Your task to perform on an android device: Open ESPN.com Image 0: 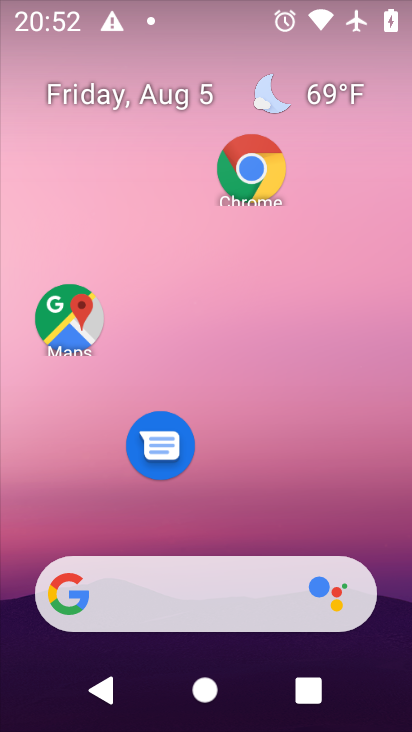
Step 0: click (234, 193)
Your task to perform on an android device: Open ESPN.com Image 1: 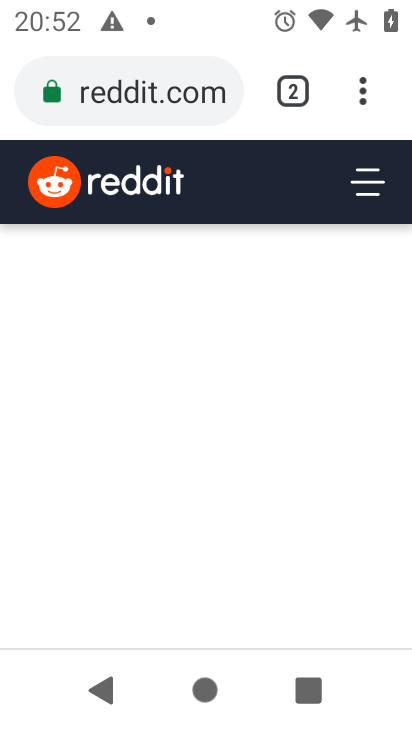
Step 1: click (300, 92)
Your task to perform on an android device: Open ESPN.com Image 2: 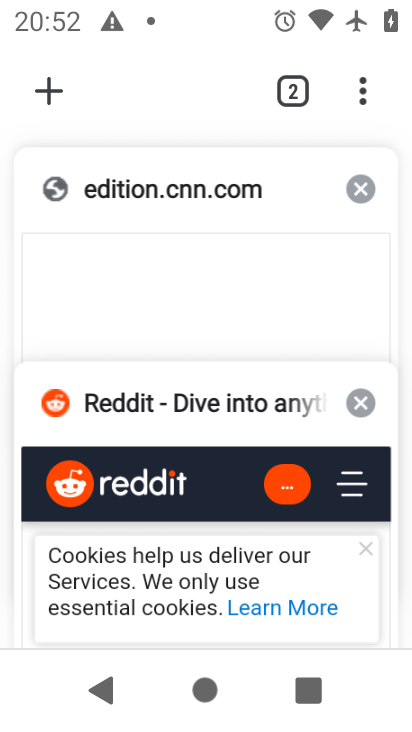
Step 2: click (61, 84)
Your task to perform on an android device: Open ESPN.com Image 3: 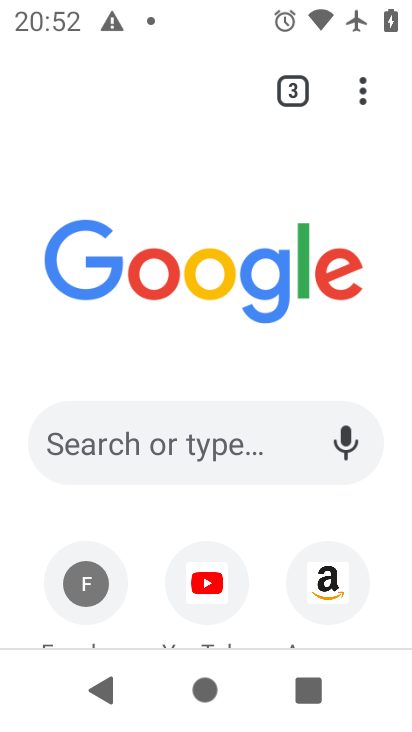
Step 3: type "ESPN.com"
Your task to perform on an android device: Open ESPN.com Image 4: 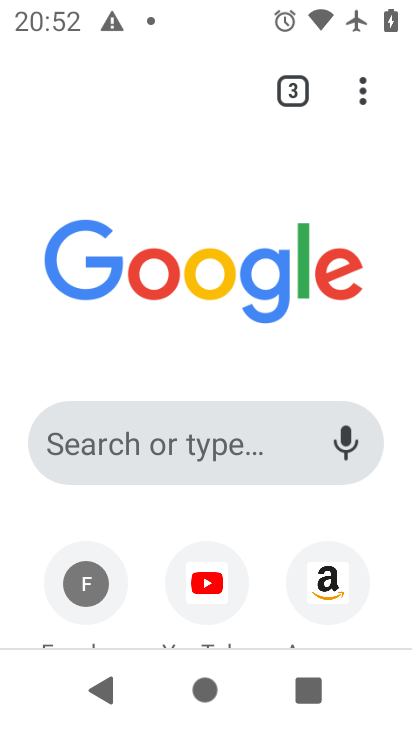
Step 4: type ""
Your task to perform on an android device: Open ESPN.com Image 5: 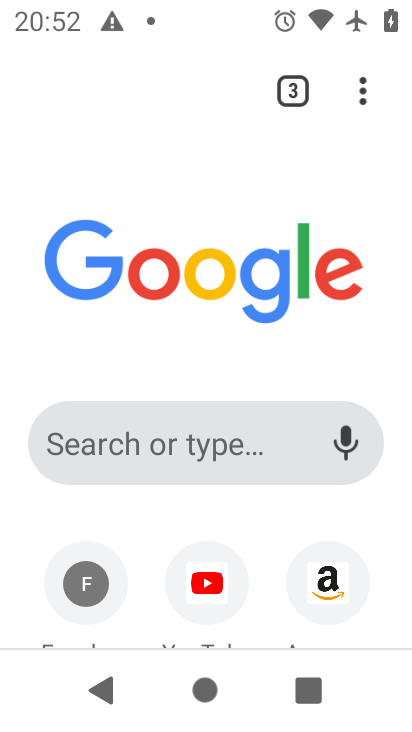
Step 5: click (140, 437)
Your task to perform on an android device: Open ESPN.com Image 6: 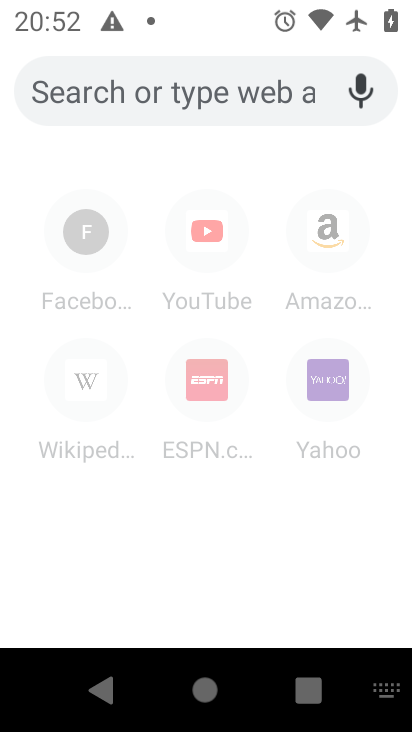
Step 6: type "ESPN.com"
Your task to perform on an android device: Open ESPN.com Image 7: 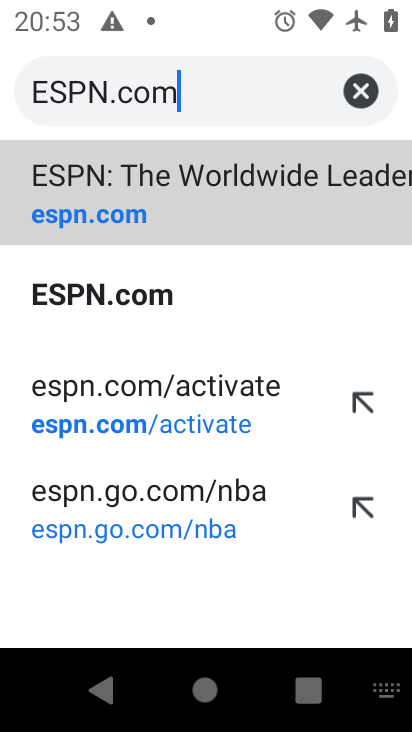
Step 7: click (164, 207)
Your task to perform on an android device: Open ESPN.com Image 8: 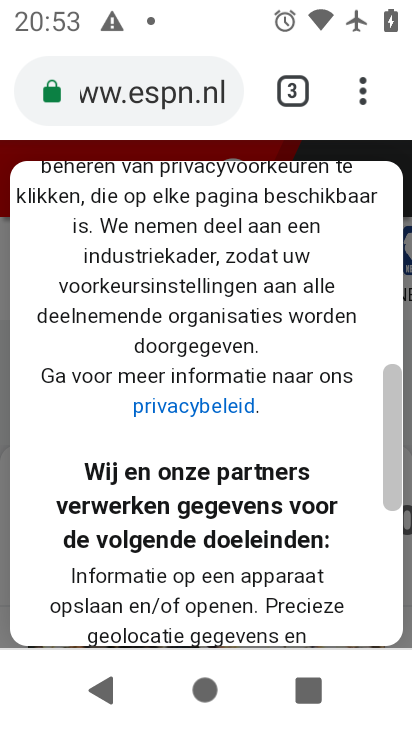
Step 8: task complete